Your task to perform on an android device: Open Yahoo.com Image 0: 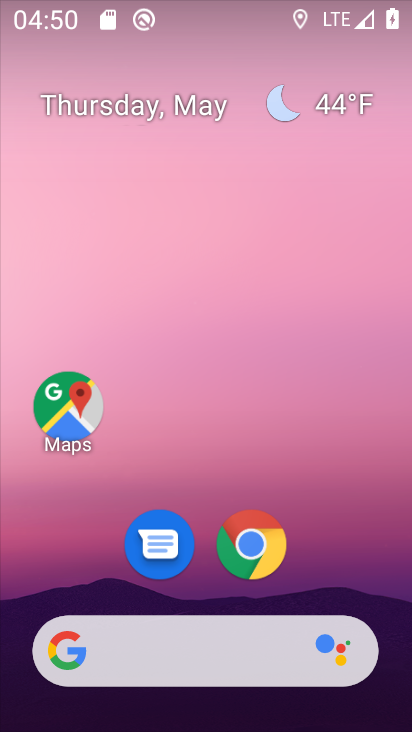
Step 0: click (237, 544)
Your task to perform on an android device: Open Yahoo.com Image 1: 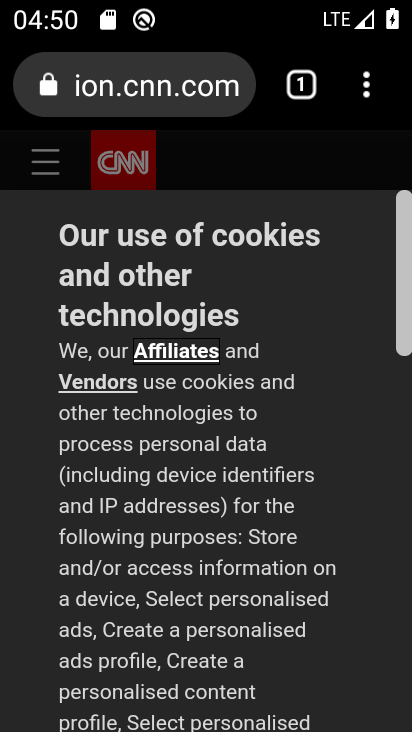
Step 1: click (212, 91)
Your task to perform on an android device: Open Yahoo.com Image 2: 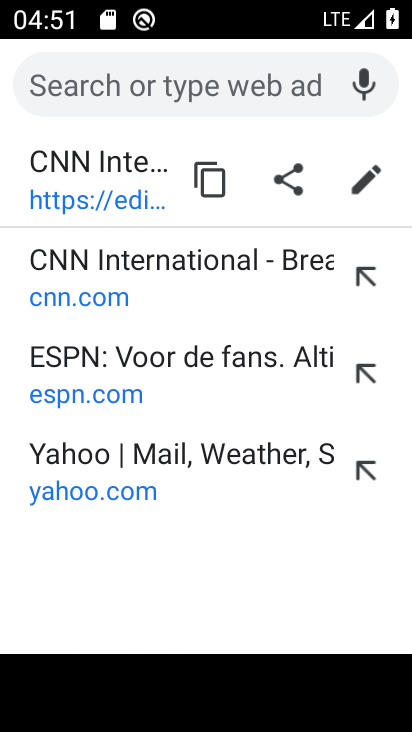
Step 2: type "yahoo.com"
Your task to perform on an android device: Open Yahoo.com Image 3: 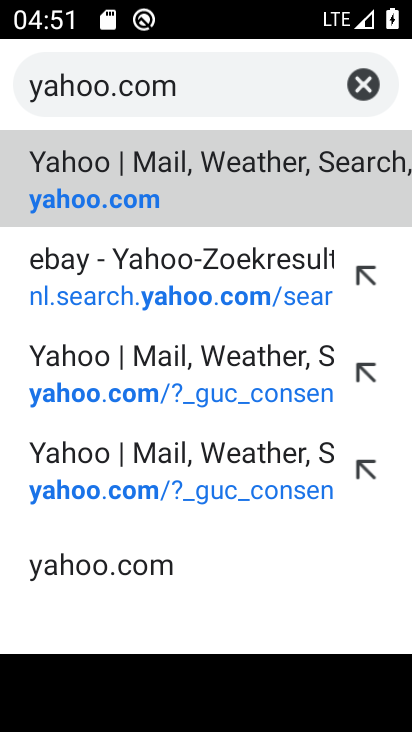
Step 3: click (103, 153)
Your task to perform on an android device: Open Yahoo.com Image 4: 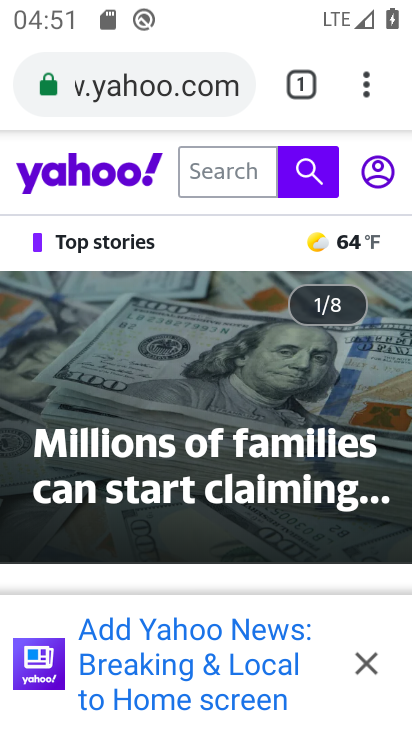
Step 4: task complete